Your task to perform on an android device: toggle show notifications on the lock screen Image 0: 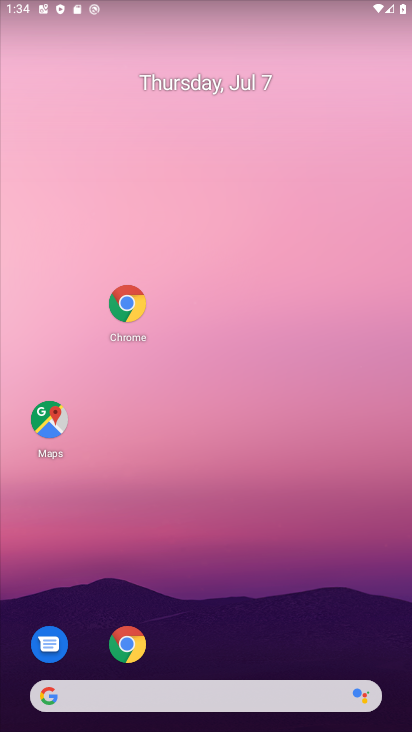
Step 0: drag from (229, 561) to (298, 1)
Your task to perform on an android device: toggle show notifications on the lock screen Image 1: 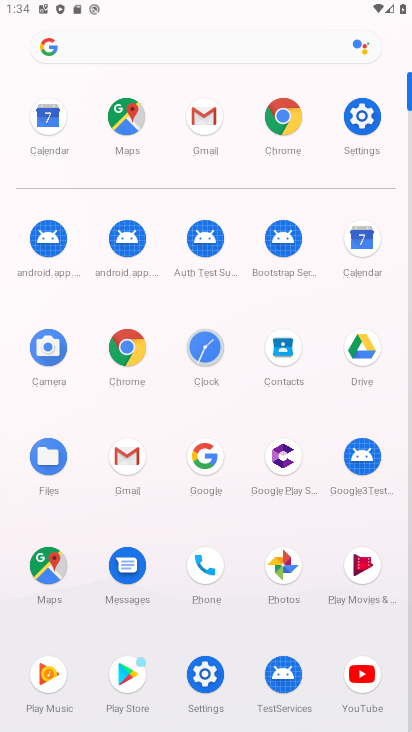
Step 1: click (216, 687)
Your task to perform on an android device: toggle show notifications on the lock screen Image 2: 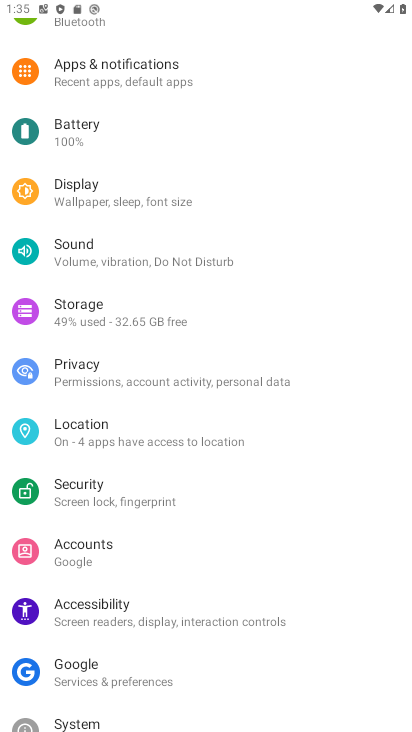
Step 2: click (174, 70)
Your task to perform on an android device: toggle show notifications on the lock screen Image 3: 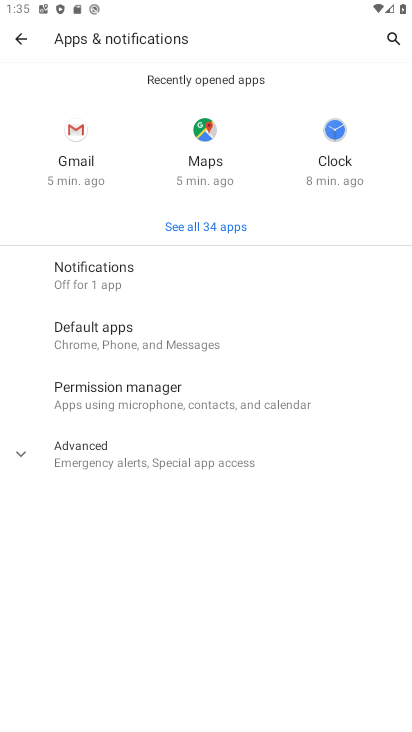
Step 3: click (147, 288)
Your task to perform on an android device: toggle show notifications on the lock screen Image 4: 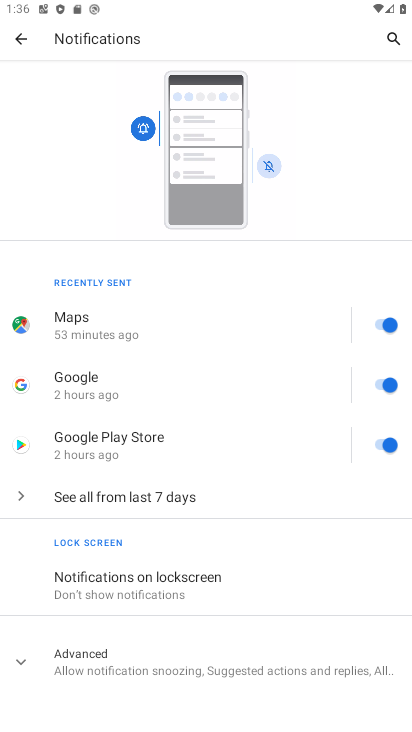
Step 4: click (182, 596)
Your task to perform on an android device: toggle show notifications on the lock screen Image 5: 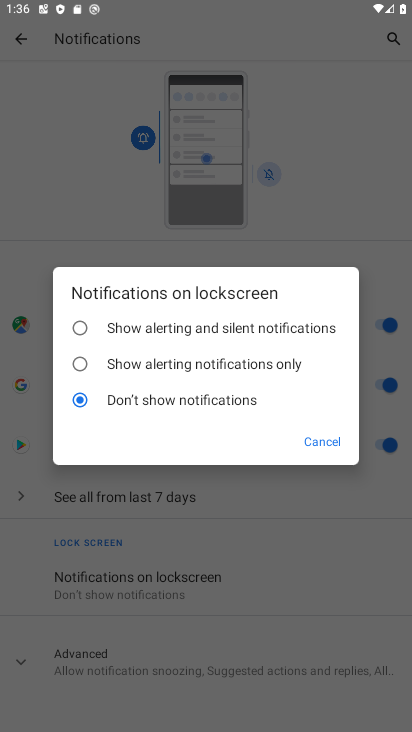
Step 5: click (194, 334)
Your task to perform on an android device: toggle show notifications on the lock screen Image 6: 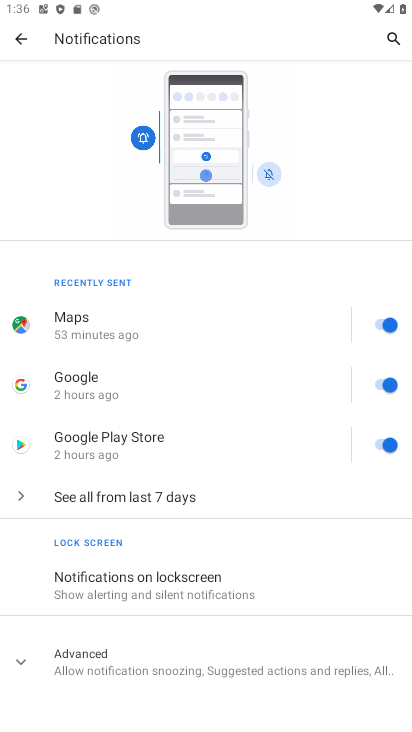
Step 6: task complete